Your task to perform on an android device: turn off data saver in the chrome app Image 0: 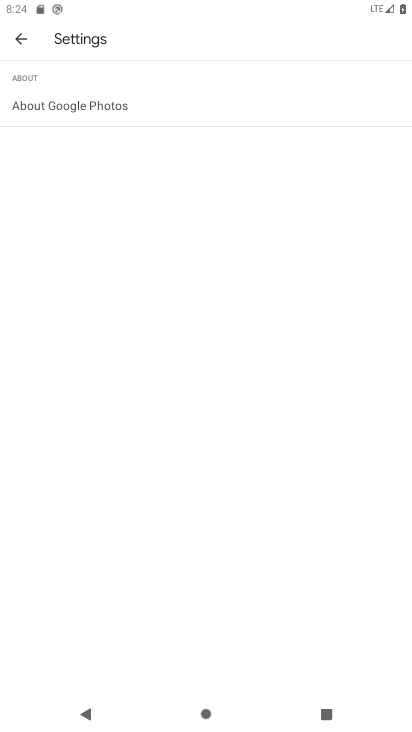
Step 0: press home button
Your task to perform on an android device: turn off data saver in the chrome app Image 1: 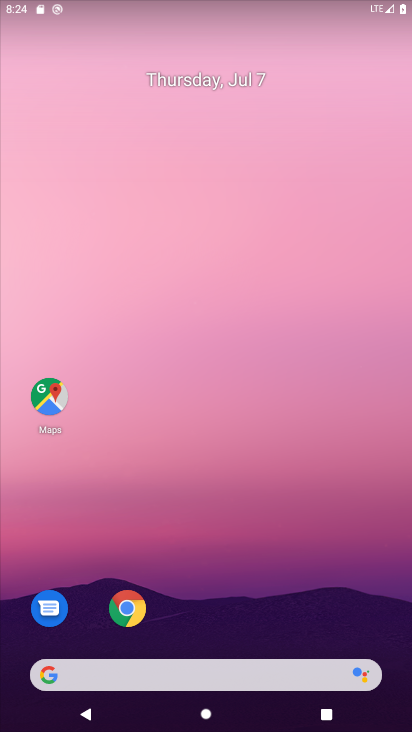
Step 1: drag from (377, 631) to (382, 75)
Your task to perform on an android device: turn off data saver in the chrome app Image 2: 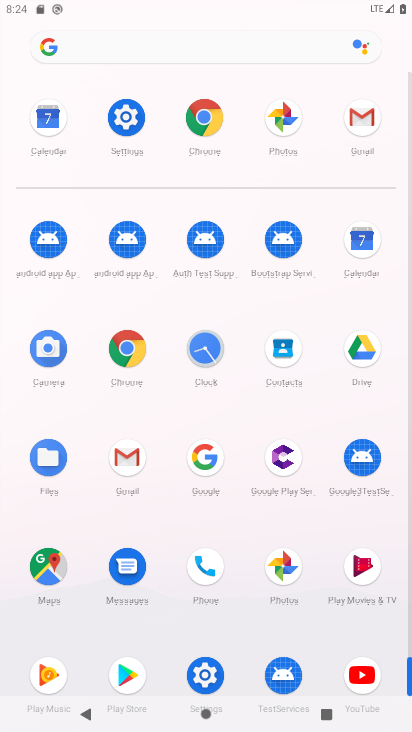
Step 2: click (129, 348)
Your task to perform on an android device: turn off data saver in the chrome app Image 3: 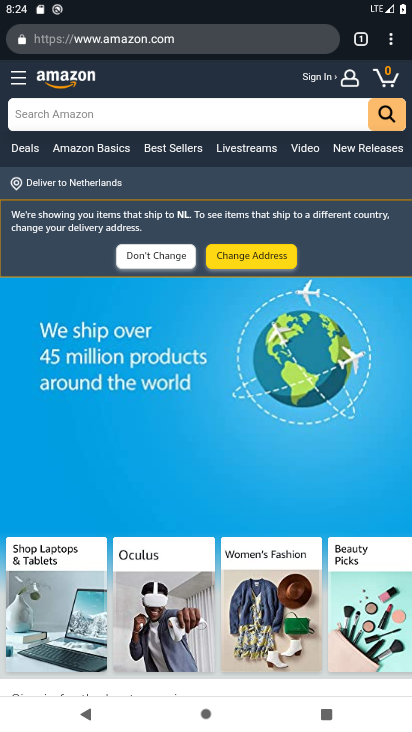
Step 3: click (392, 40)
Your task to perform on an android device: turn off data saver in the chrome app Image 4: 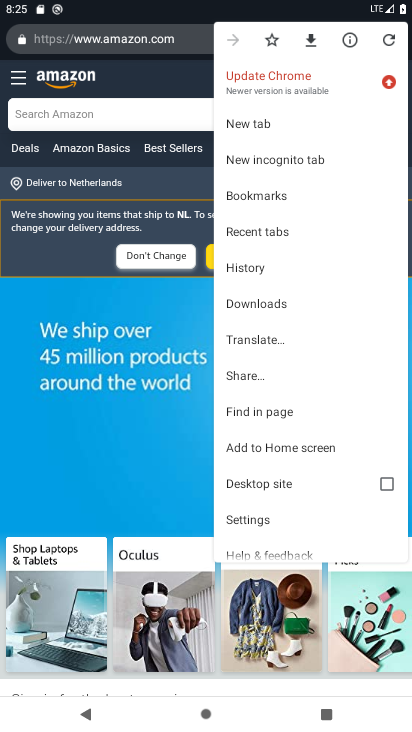
Step 4: click (260, 518)
Your task to perform on an android device: turn off data saver in the chrome app Image 5: 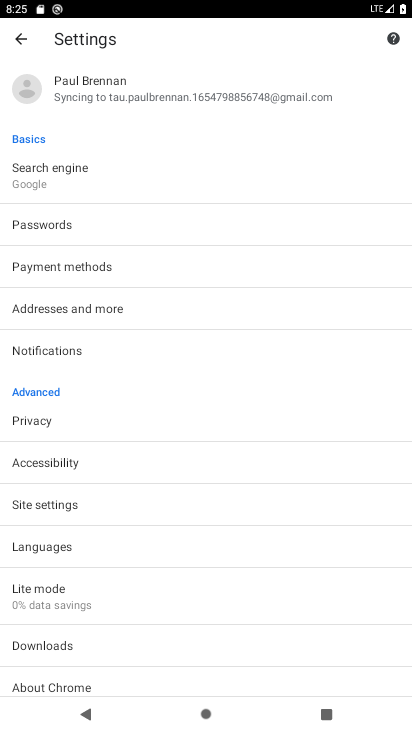
Step 5: click (174, 602)
Your task to perform on an android device: turn off data saver in the chrome app Image 6: 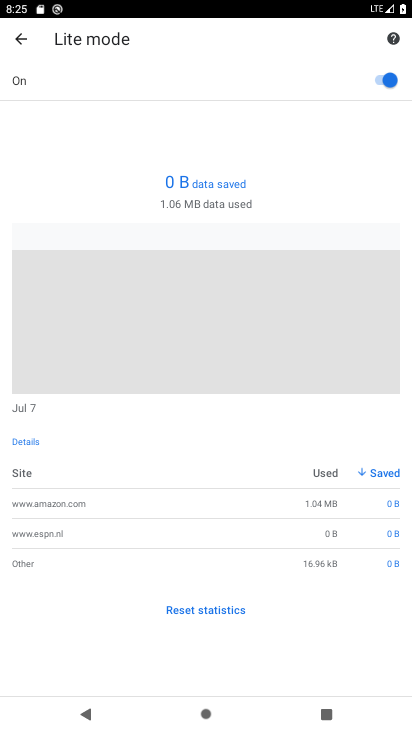
Step 6: click (389, 82)
Your task to perform on an android device: turn off data saver in the chrome app Image 7: 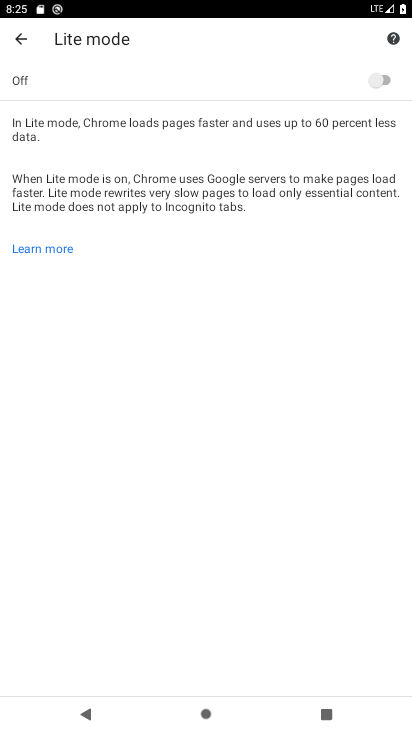
Step 7: task complete